Your task to perform on an android device: Open location settings Image 0: 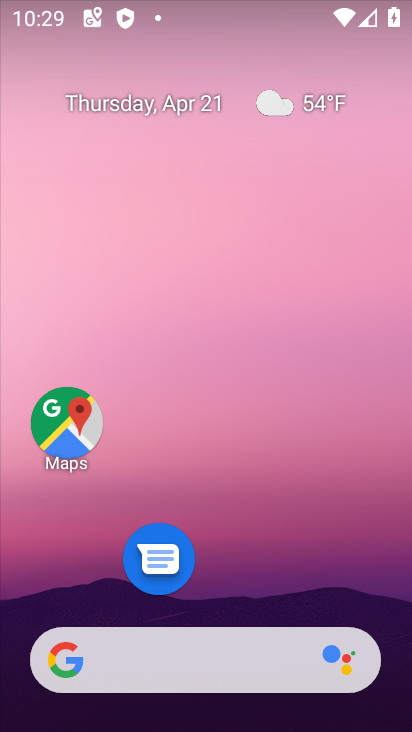
Step 0: drag from (251, 500) to (295, 87)
Your task to perform on an android device: Open location settings Image 1: 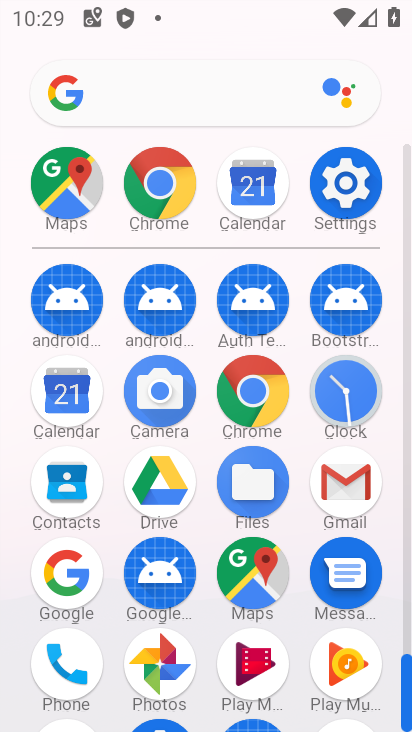
Step 1: click (363, 175)
Your task to perform on an android device: Open location settings Image 2: 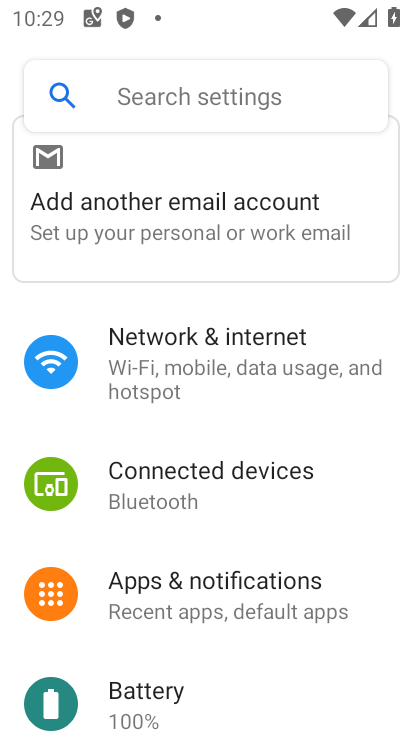
Step 2: drag from (241, 626) to (269, 160)
Your task to perform on an android device: Open location settings Image 3: 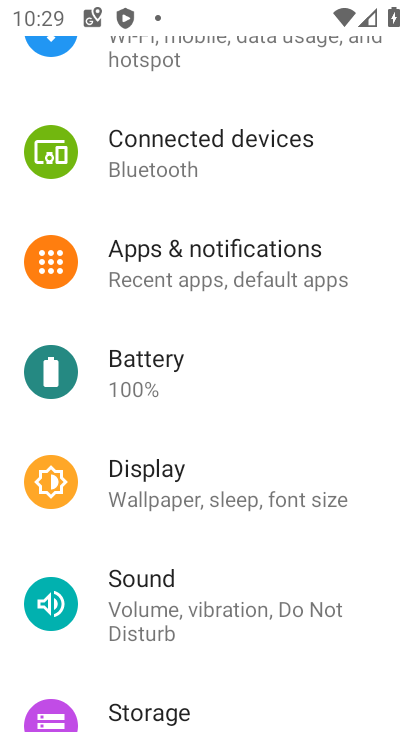
Step 3: drag from (211, 608) to (276, 108)
Your task to perform on an android device: Open location settings Image 4: 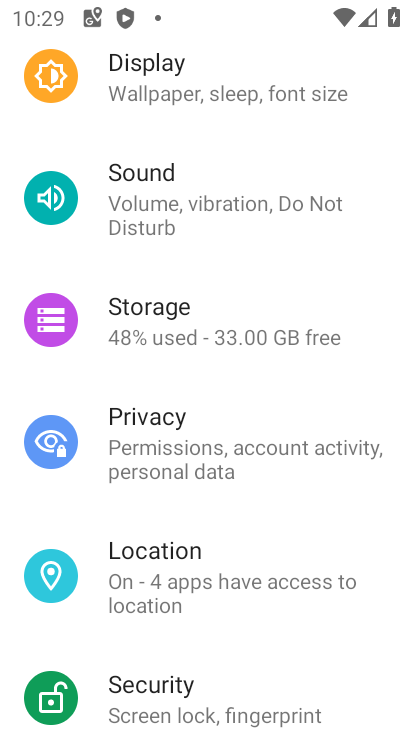
Step 4: click (177, 585)
Your task to perform on an android device: Open location settings Image 5: 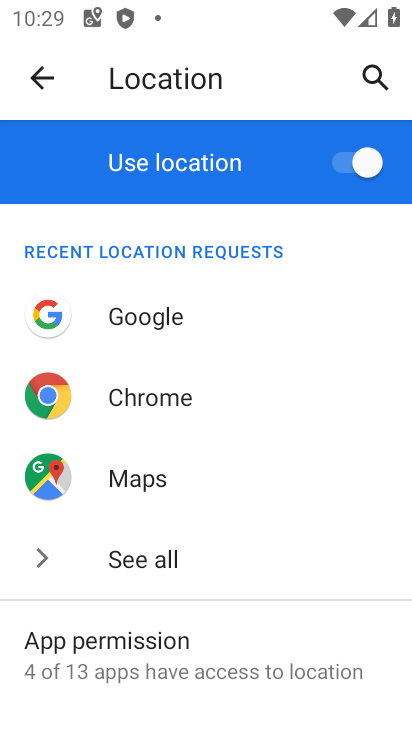
Step 5: task complete